Your task to perform on an android device: Go to ESPN.com Image 0: 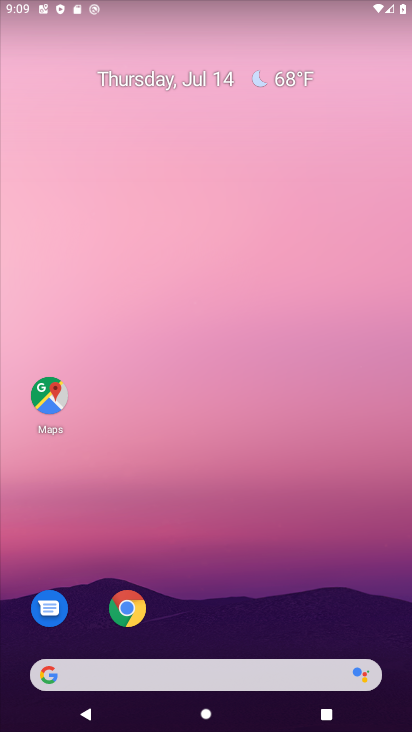
Step 0: click (134, 625)
Your task to perform on an android device: Go to ESPN.com Image 1: 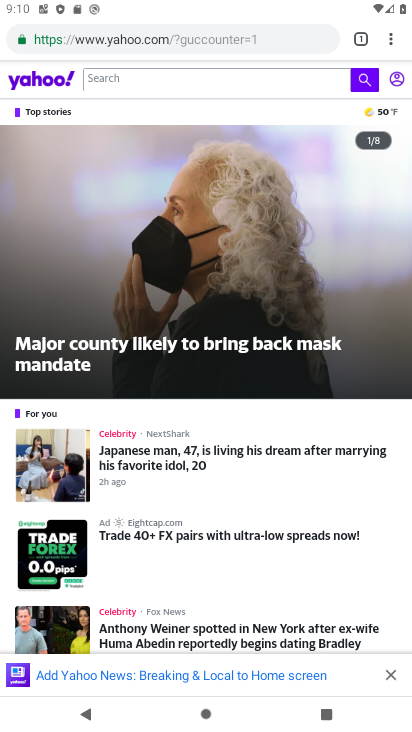
Step 1: click (200, 31)
Your task to perform on an android device: Go to ESPN.com Image 2: 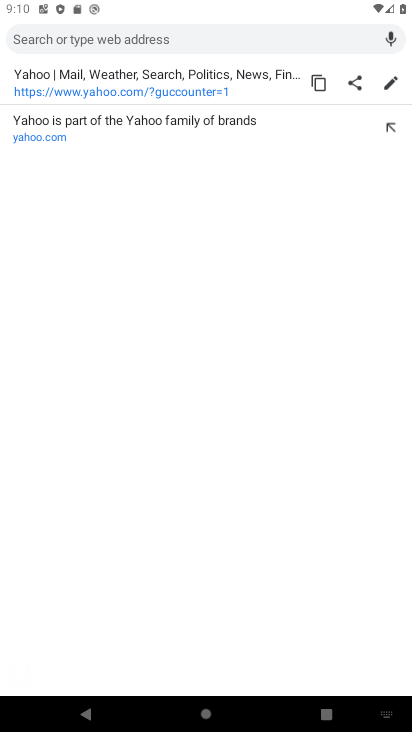
Step 2: type "espn.com"
Your task to perform on an android device: Go to ESPN.com Image 3: 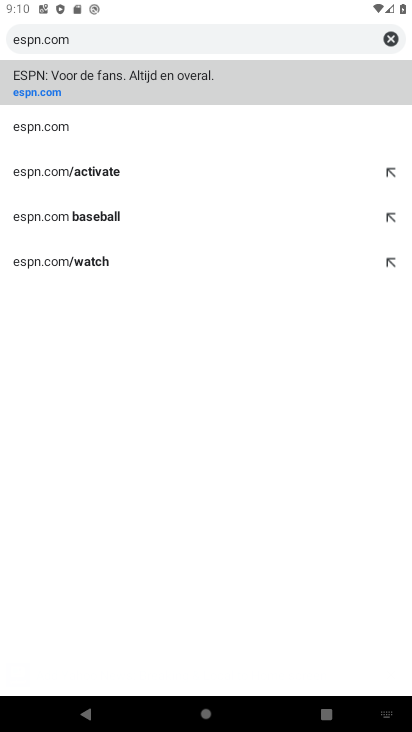
Step 3: click (140, 86)
Your task to perform on an android device: Go to ESPN.com Image 4: 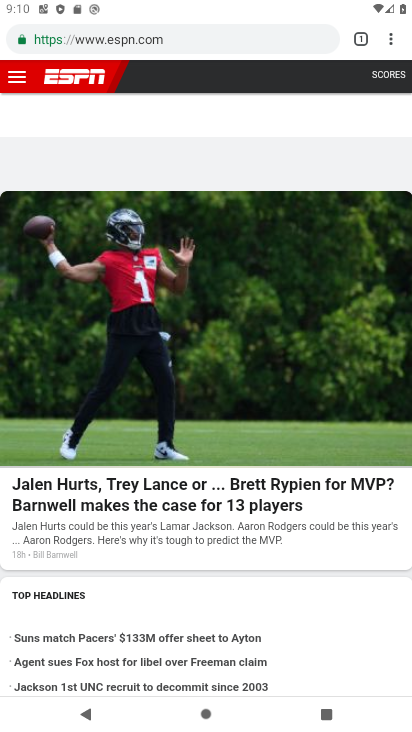
Step 4: task complete